Your task to perform on an android device: open chrome privacy settings Image 0: 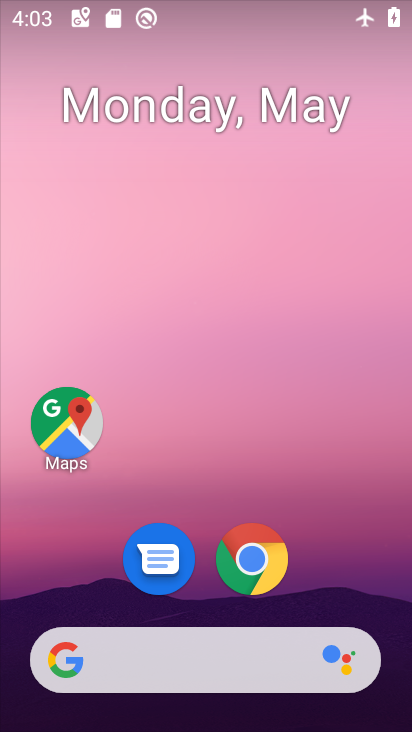
Step 0: click (257, 572)
Your task to perform on an android device: open chrome privacy settings Image 1: 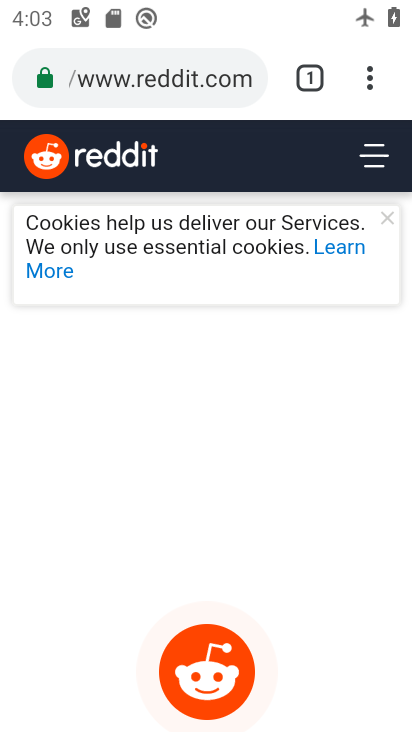
Step 1: click (372, 75)
Your task to perform on an android device: open chrome privacy settings Image 2: 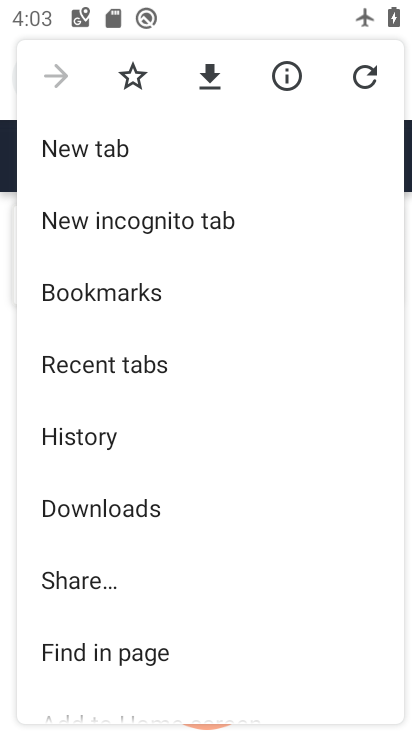
Step 2: drag from (113, 591) to (122, 372)
Your task to perform on an android device: open chrome privacy settings Image 3: 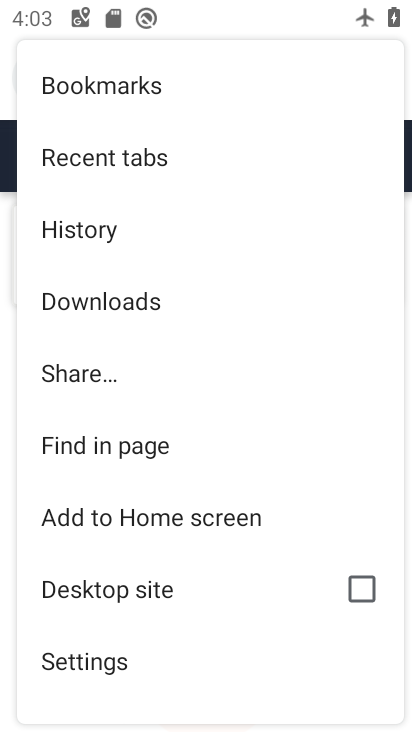
Step 3: click (109, 658)
Your task to perform on an android device: open chrome privacy settings Image 4: 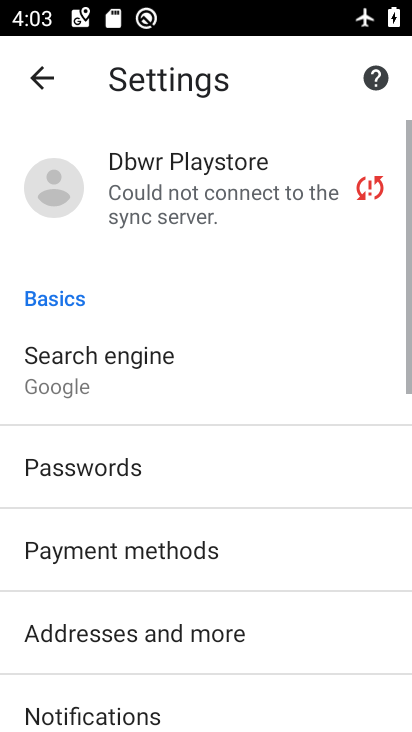
Step 4: drag from (149, 631) to (139, 301)
Your task to perform on an android device: open chrome privacy settings Image 5: 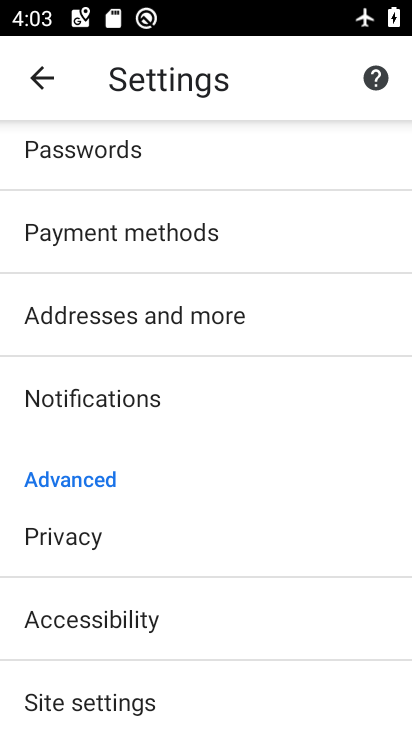
Step 5: click (87, 542)
Your task to perform on an android device: open chrome privacy settings Image 6: 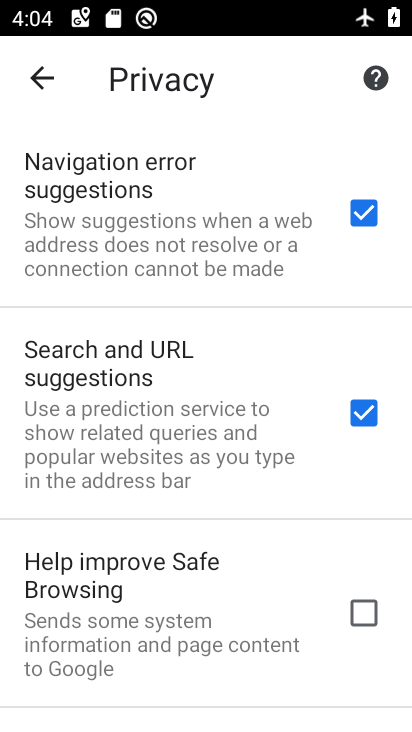
Step 6: task complete